Your task to perform on an android device: Open Chrome and go to settings Image 0: 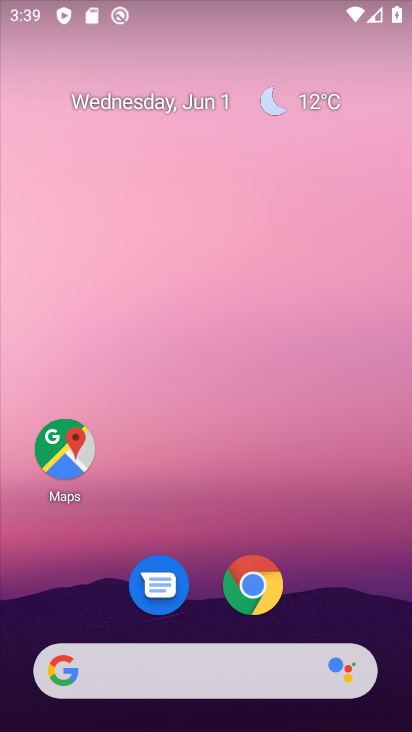
Step 0: click (264, 587)
Your task to perform on an android device: Open Chrome and go to settings Image 1: 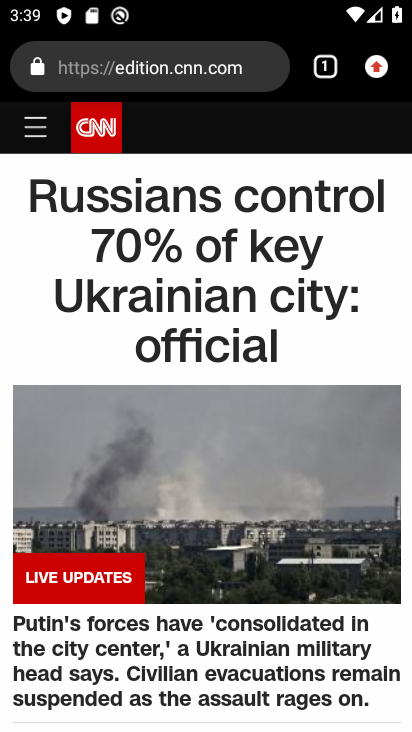
Step 1: click (375, 63)
Your task to perform on an android device: Open Chrome and go to settings Image 2: 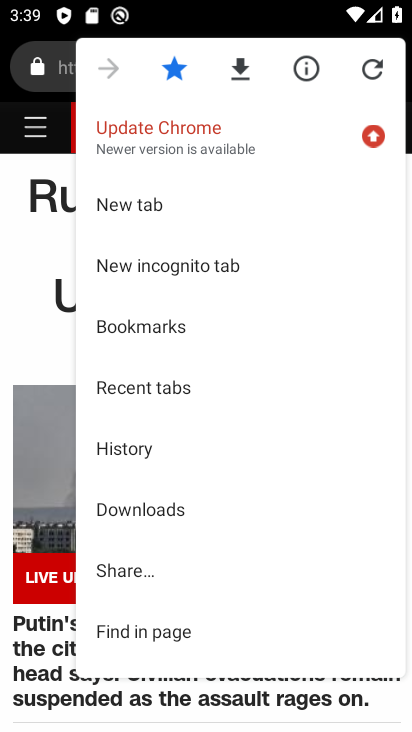
Step 2: drag from (256, 534) to (290, 228)
Your task to perform on an android device: Open Chrome and go to settings Image 3: 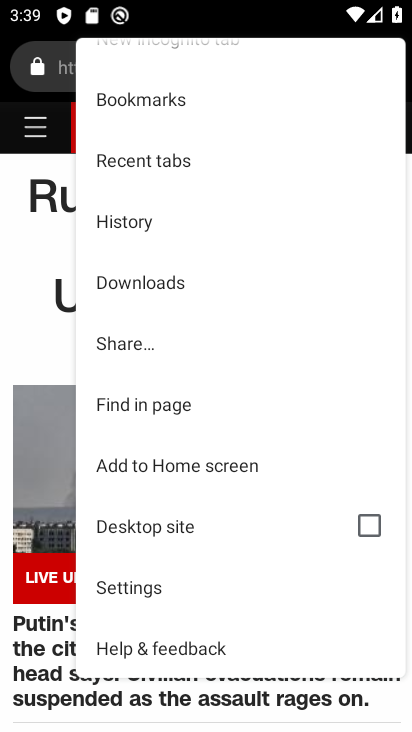
Step 3: click (139, 575)
Your task to perform on an android device: Open Chrome and go to settings Image 4: 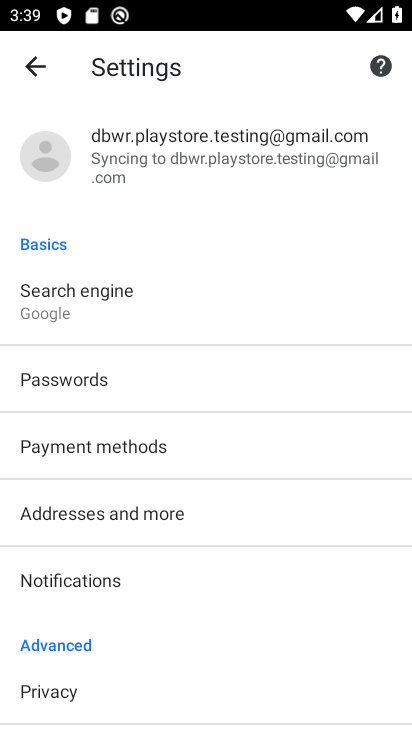
Step 4: task complete